Your task to perform on an android device: see creations saved in the google photos Image 0: 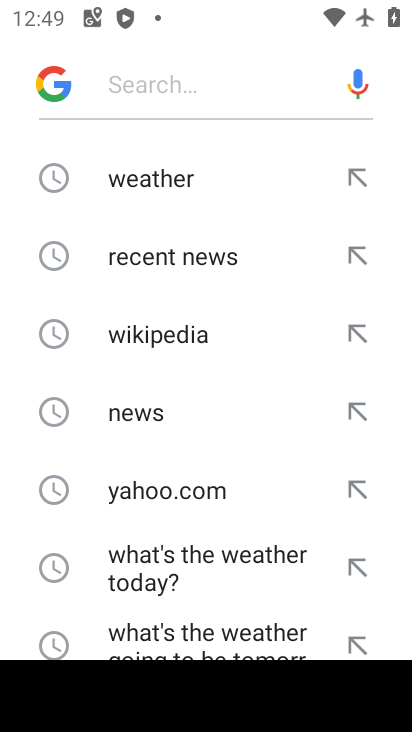
Step 0: press home button
Your task to perform on an android device: see creations saved in the google photos Image 1: 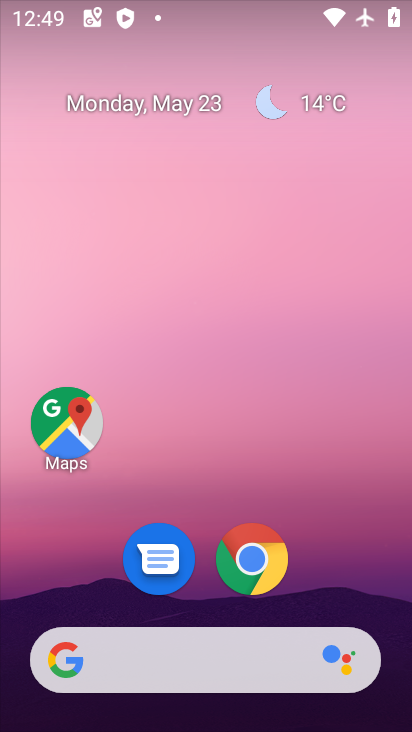
Step 1: drag from (332, 607) to (328, 2)
Your task to perform on an android device: see creations saved in the google photos Image 2: 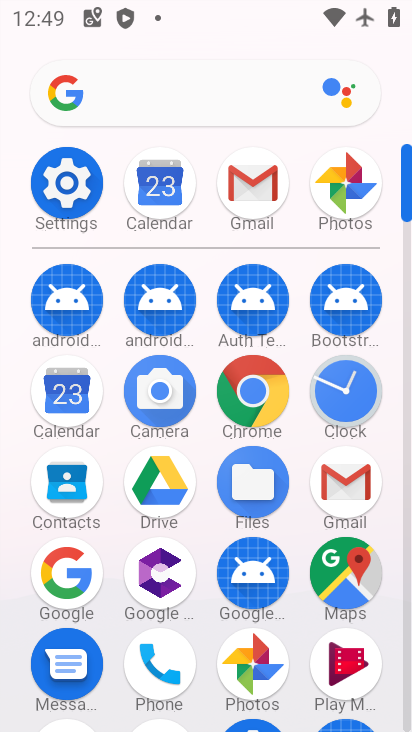
Step 2: click (344, 183)
Your task to perform on an android device: see creations saved in the google photos Image 3: 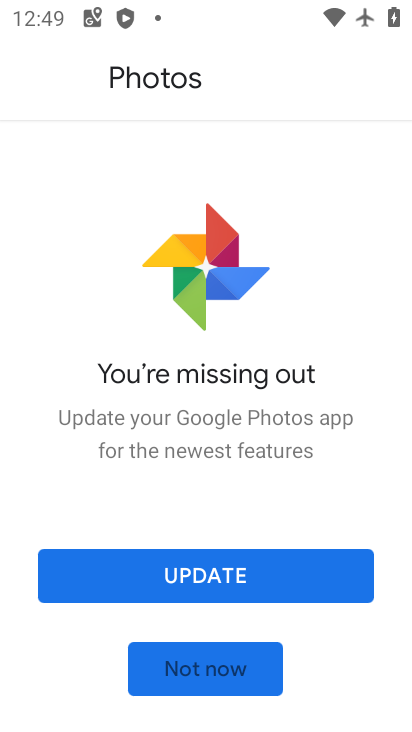
Step 3: click (212, 669)
Your task to perform on an android device: see creations saved in the google photos Image 4: 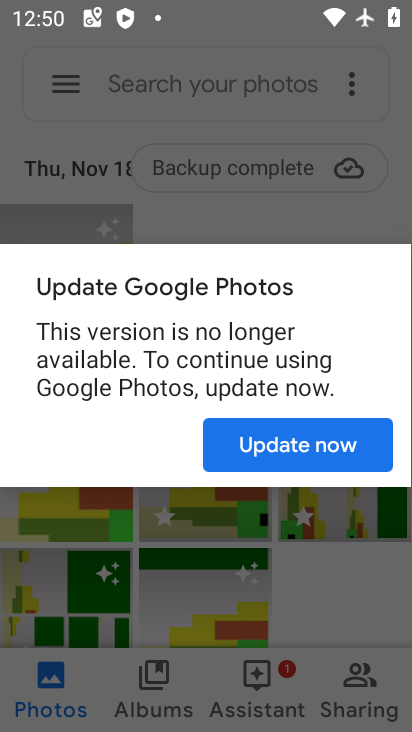
Step 4: click (271, 448)
Your task to perform on an android device: see creations saved in the google photos Image 5: 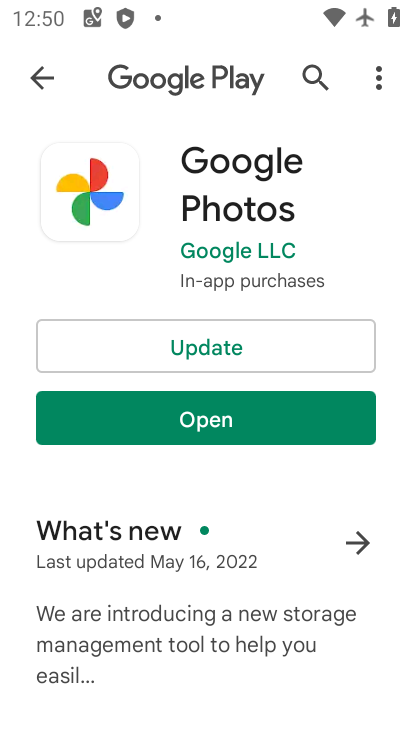
Step 5: click (214, 424)
Your task to perform on an android device: see creations saved in the google photos Image 6: 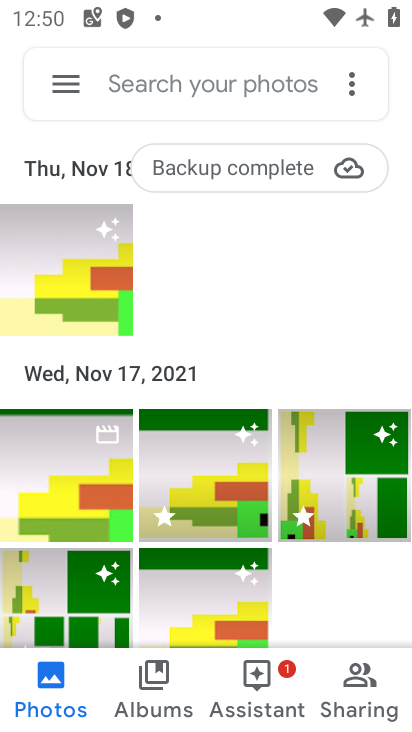
Step 6: click (160, 87)
Your task to perform on an android device: see creations saved in the google photos Image 7: 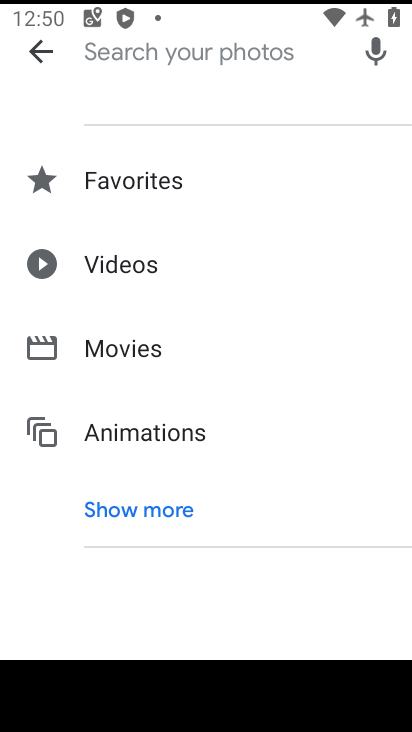
Step 7: click (116, 516)
Your task to perform on an android device: see creations saved in the google photos Image 8: 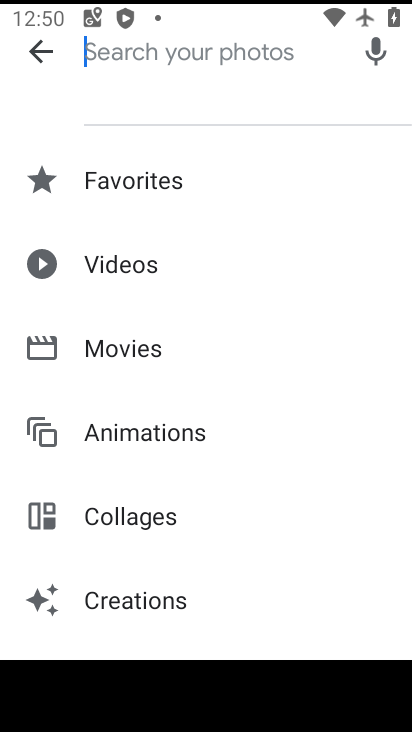
Step 8: click (130, 600)
Your task to perform on an android device: see creations saved in the google photos Image 9: 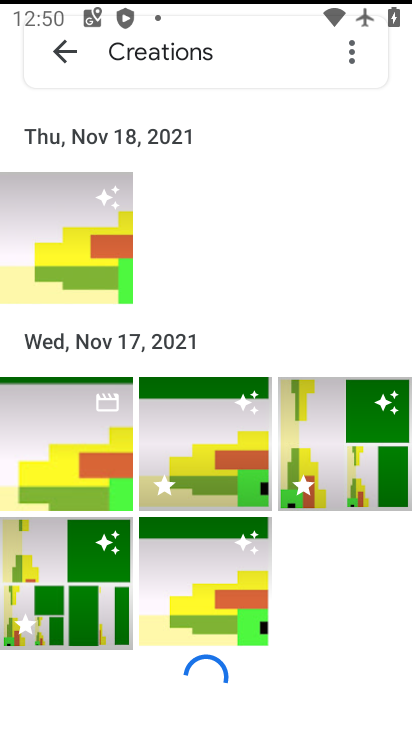
Step 9: task complete